Your task to perform on an android device: turn smart compose on in the gmail app Image 0: 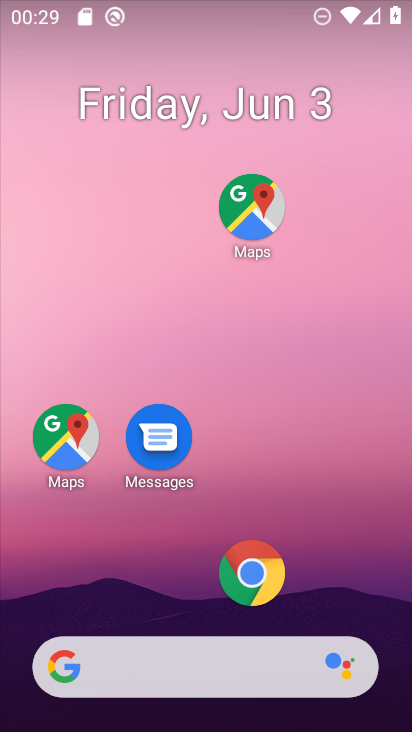
Step 0: drag from (330, 592) to (286, 79)
Your task to perform on an android device: turn smart compose on in the gmail app Image 1: 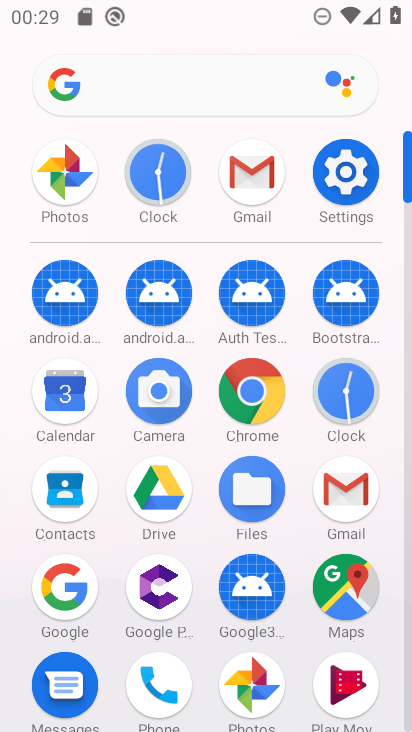
Step 1: click (343, 482)
Your task to perform on an android device: turn smart compose on in the gmail app Image 2: 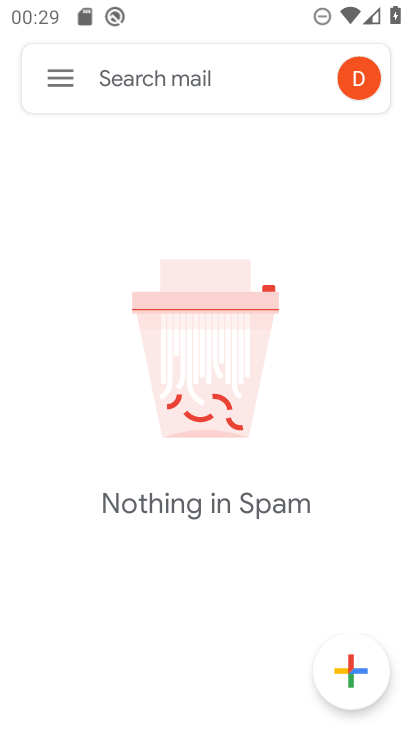
Step 2: click (63, 77)
Your task to perform on an android device: turn smart compose on in the gmail app Image 3: 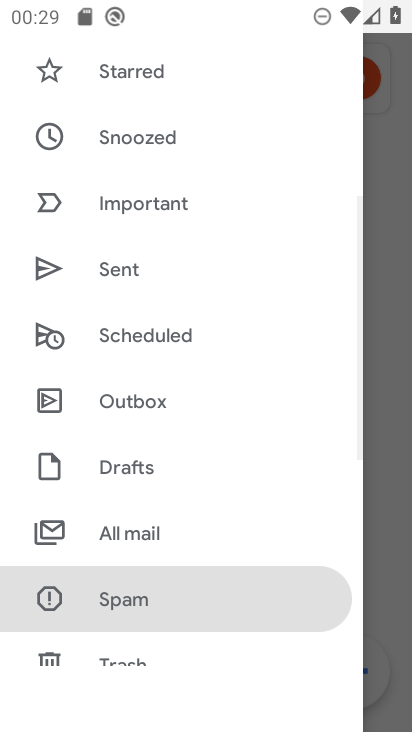
Step 3: drag from (228, 590) to (215, 200)
Your task to perform on an android device: turn smart compose on in the gmail app Image 4: 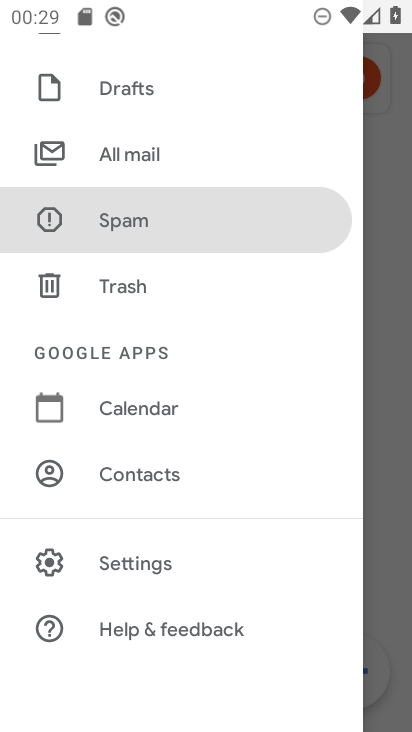
Step 4: click (134, 565)
Your task to perform on an android device: turn smart compose on in the gmail app Image 5: 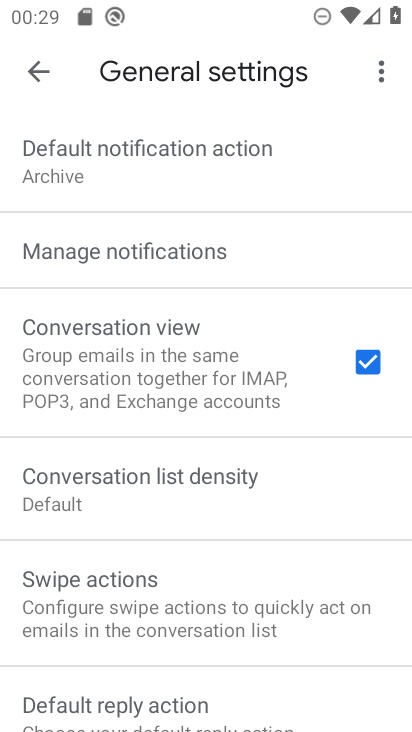
Step 5: drag from (269, 577) to (239, 258)
Your task to perform on an android device: turn smart compose on in the gmail app Image 6: 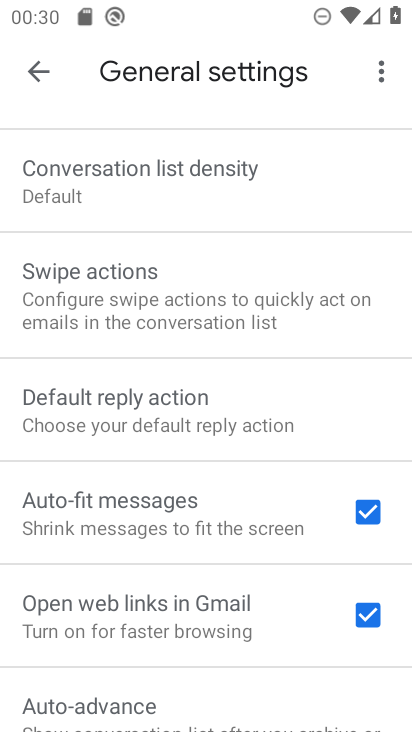
Step 6: drag from (219, 609) to (312, 177)
Your task to perform on an android device: turn smart compose on in the gmail app Image 7: 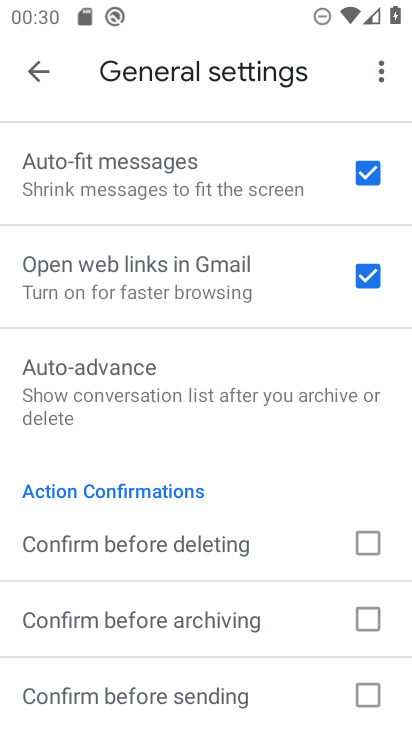
Step 7: click (48, 62)
Your task to perform on an android device: turn smart compose on in the gmail app Image 8: 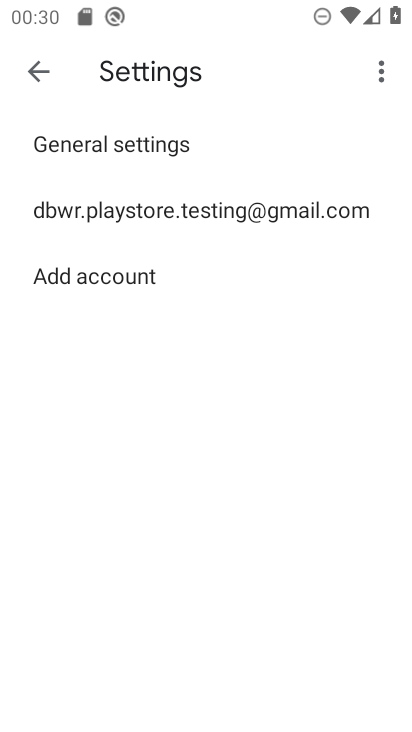
Step 8: click (178, 199)
Your task to perform on an android device: turn smart compose on in the gmail app Image 9: 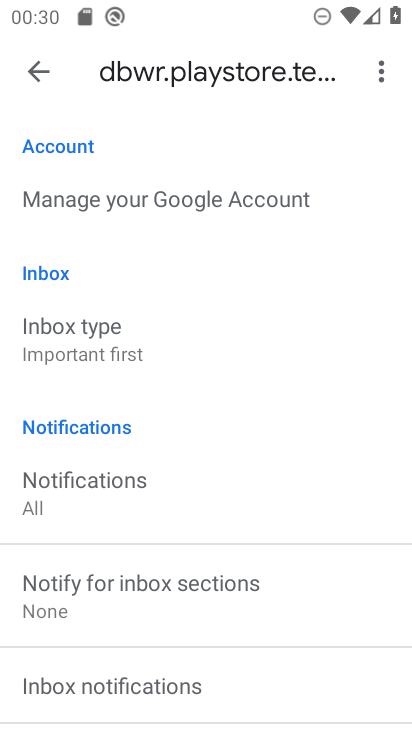
Step 9: task complete